Your task to perform on an android device: Go to Wikipedia Image 0: 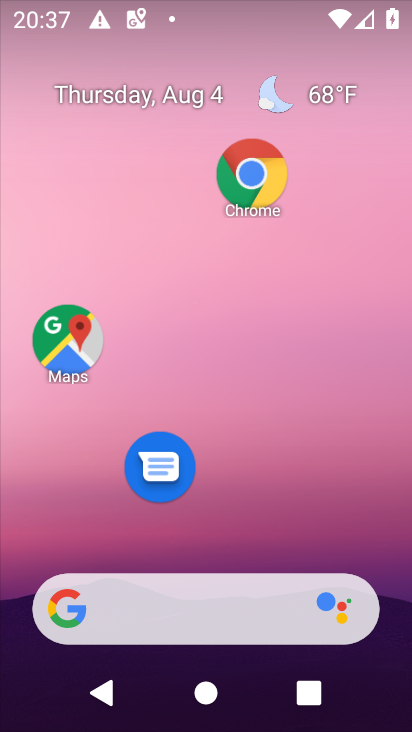
Step 0: drag from (234, 544) to (224, 34)
Your task to perform on an android device: Go to Wikipedia Image 1: 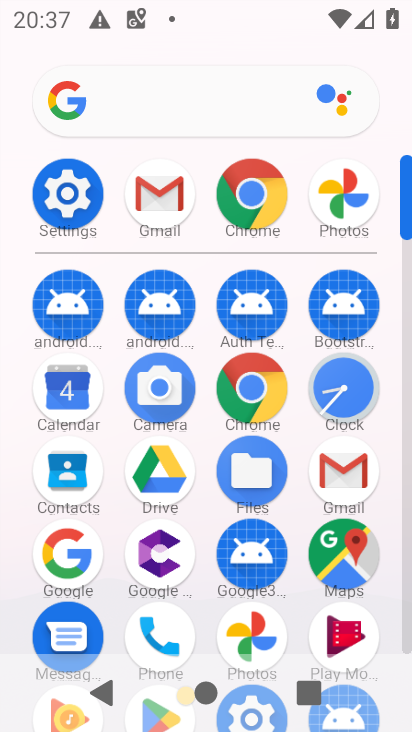
Step 1: click (264, 399)
Your task to perform on an android device: Go to Wikipedia Image 2: 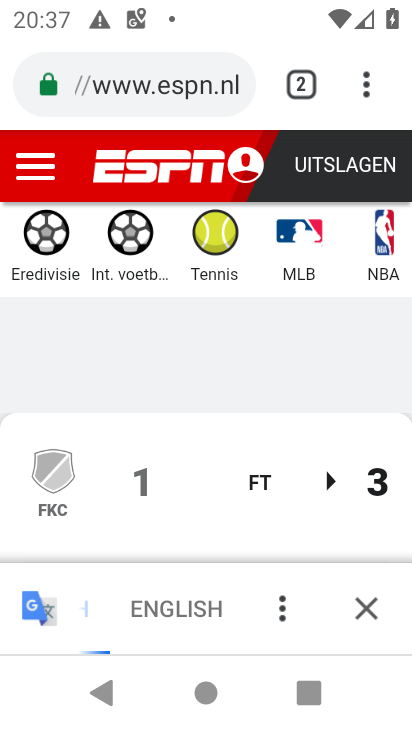
Step 2: click (154, 90)
Your task to perform on an android device: Go to Wikipedia Image 3: 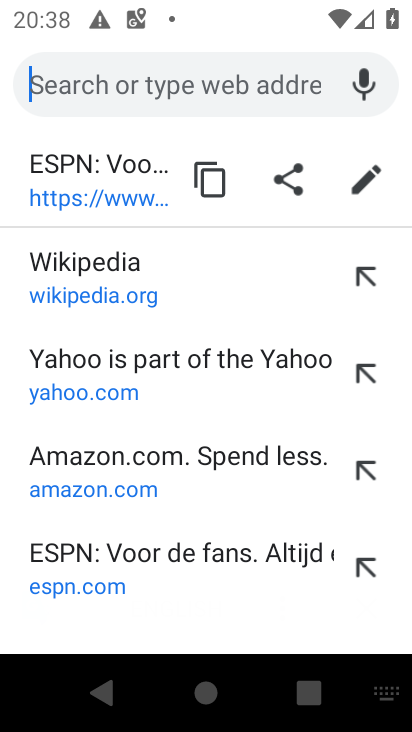
Step 3: type "Wikipedia"
Your task to perform on an android device: Go to Wikipedia Image 4: 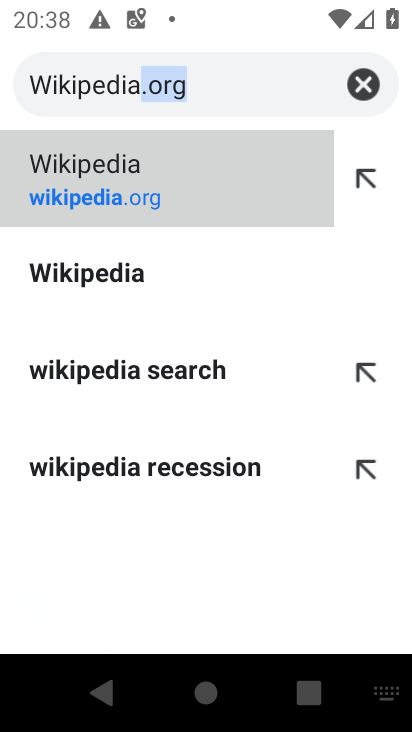
Step 4: click (60, 201)
Your task to perform on an android device: Go to Wikipedia Image 5: 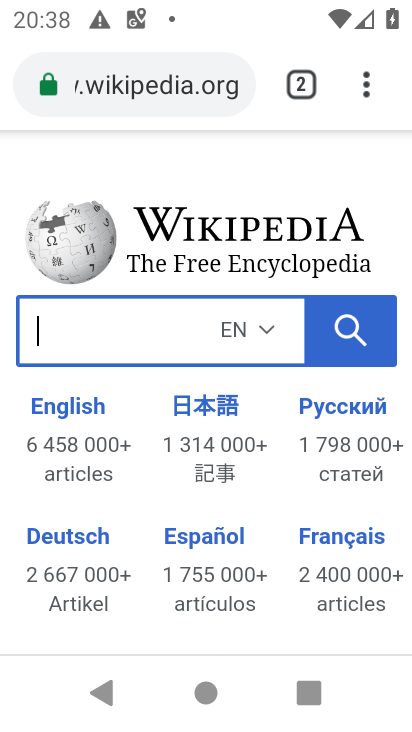
Step 5: task complete